Your task to perform on an android device: Check the weather Image 0: 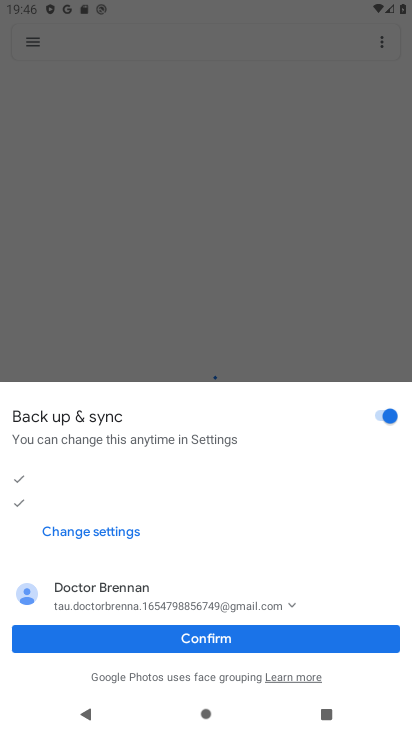
Step 0: press home button
Your task to perform on an android device: Check the weather Image 1: 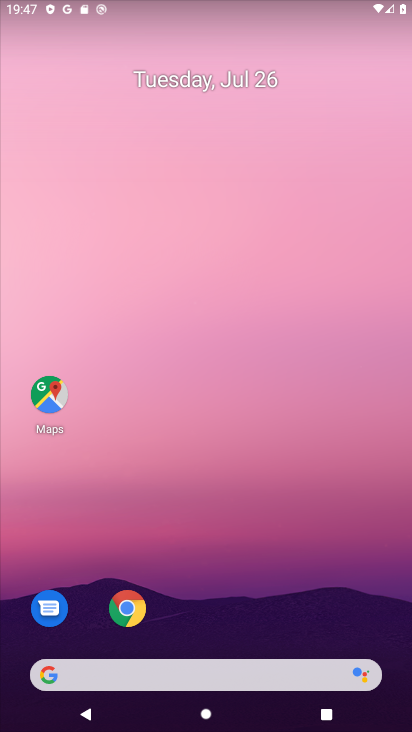
Step 1: drag from (337, 464) to (311, 185)
Your task to perform on an android device: Check the weather Image 2: 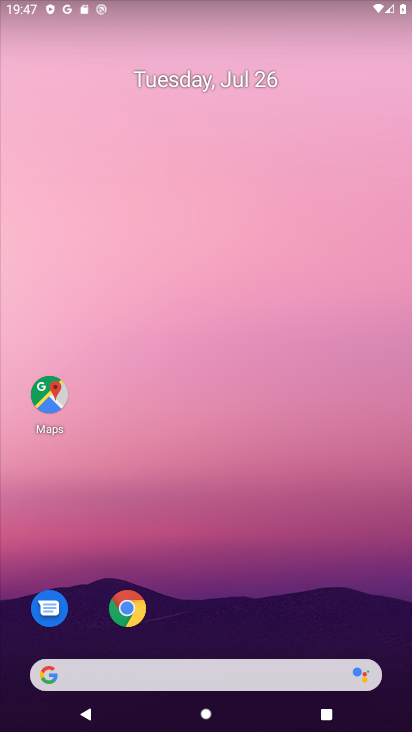
Step 2: drag from (326, 572) to (291, 80)
Your task to perform on an android device: Check the weather Image 3: 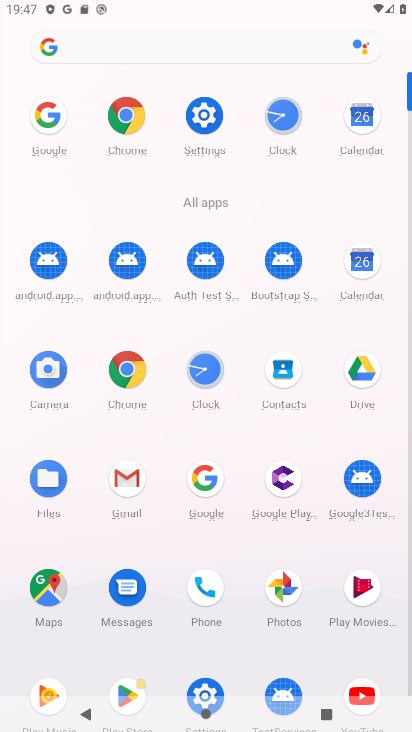
Step 3: click (66, 121)
Your task to perform on an android device: Check the weather Image 4: 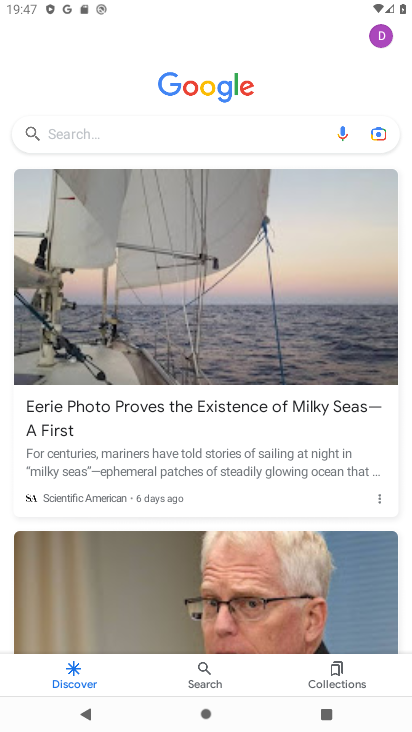
Step 4: click (155, 130)
Your task to perform on an android device: Check the weather Image 5: 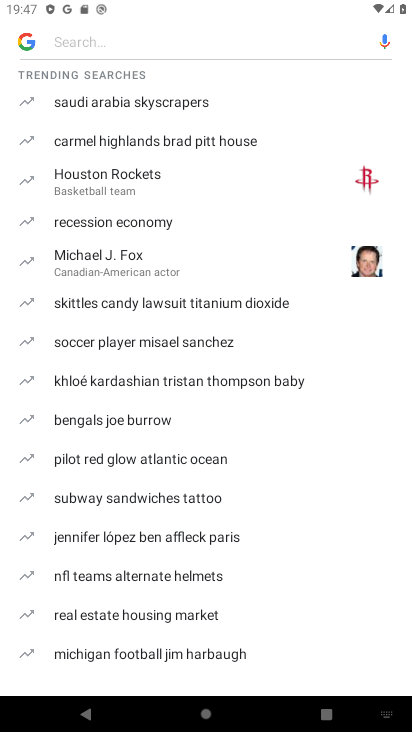
Step 5: type "weather"
Your task to perform on an android device: Check the weather Image 6: 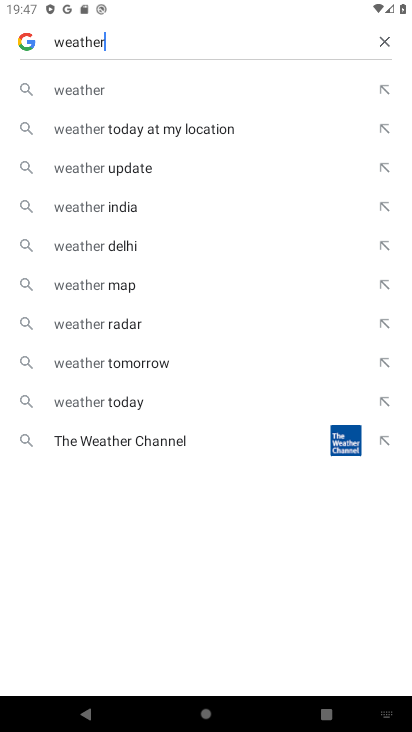
Step 6: click (67, 88)
Your task to perform on an android device: Check the weather Image 7: 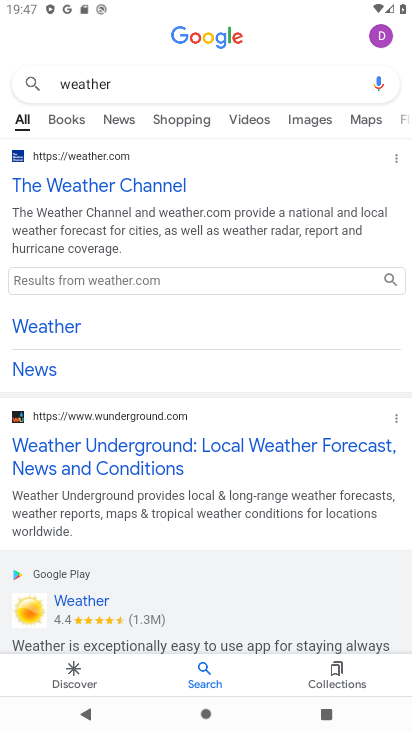
Step 7: drag from (266, 438) to (202, 93)
Your task to perform on an android device: Check the weather Image 8: 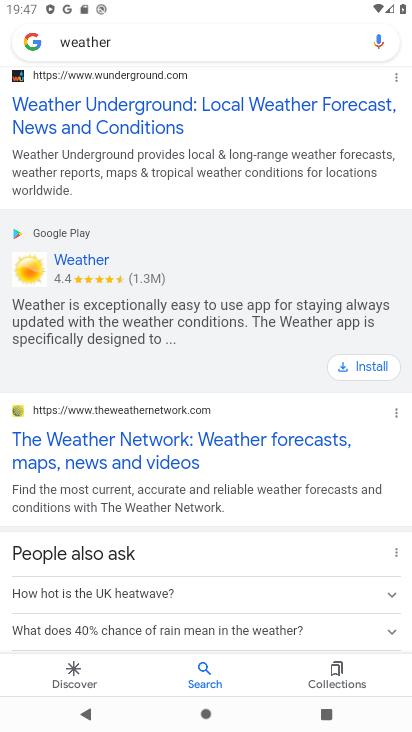
Step 8: drag from (235, 435) to (195, 98)
Your task to perform on an android device: Check the weather Image 9: 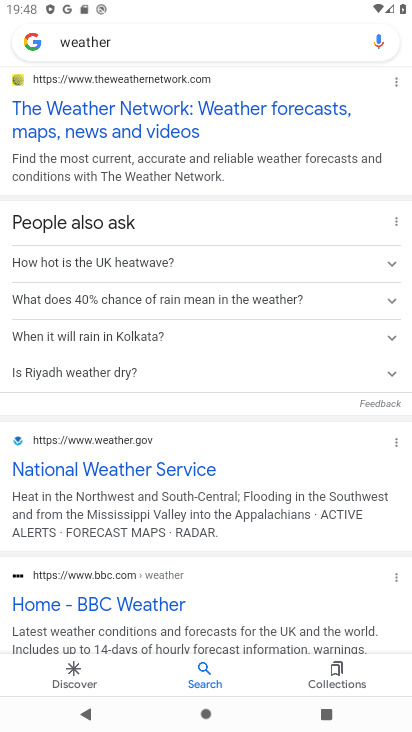
Step 9: drag from (219, 465) to (266, 65)
Your task to perform on an android device: Check the weather Image 10: 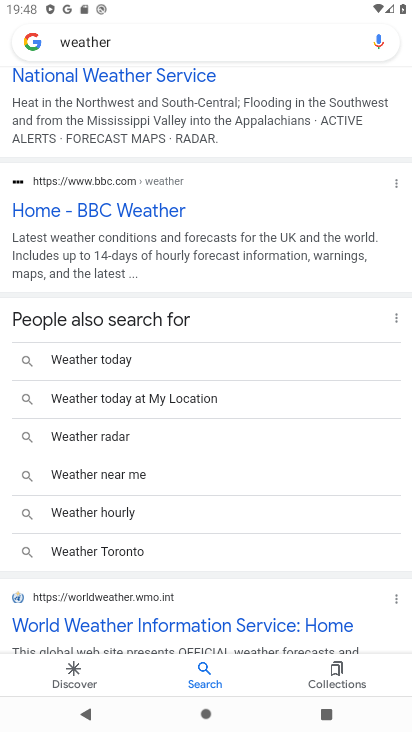
Step 10: click (144, 359)
Your task to perform on an android device: Check the weather Image 11: 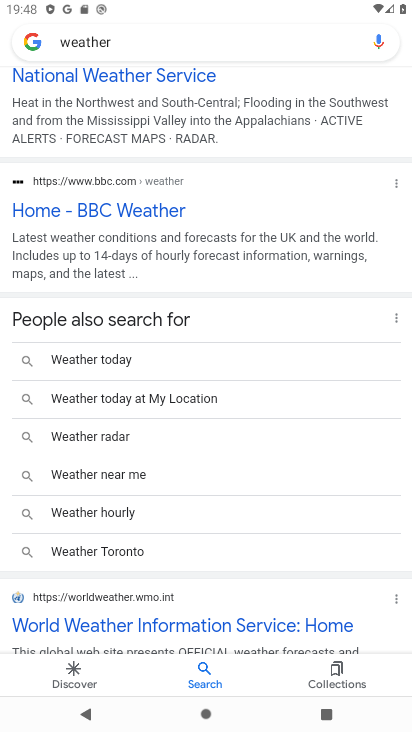
Step 11: click (111, 355)
Your task to perform on an android device: Check the weather Image 12: 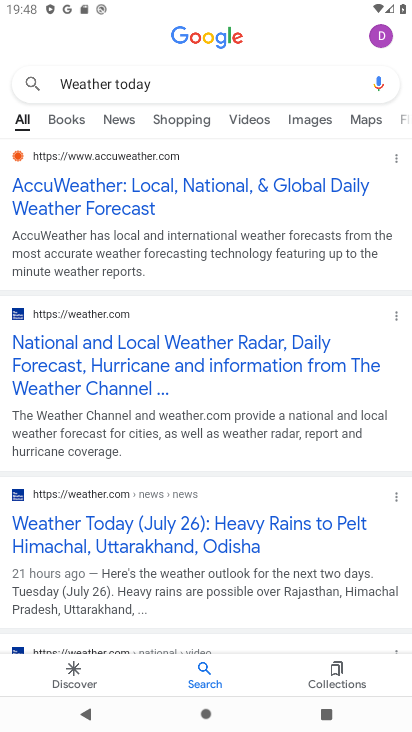
Step 12: task complete